Your task to perform on an android device: move a message to another label in the gmail app Image 0: 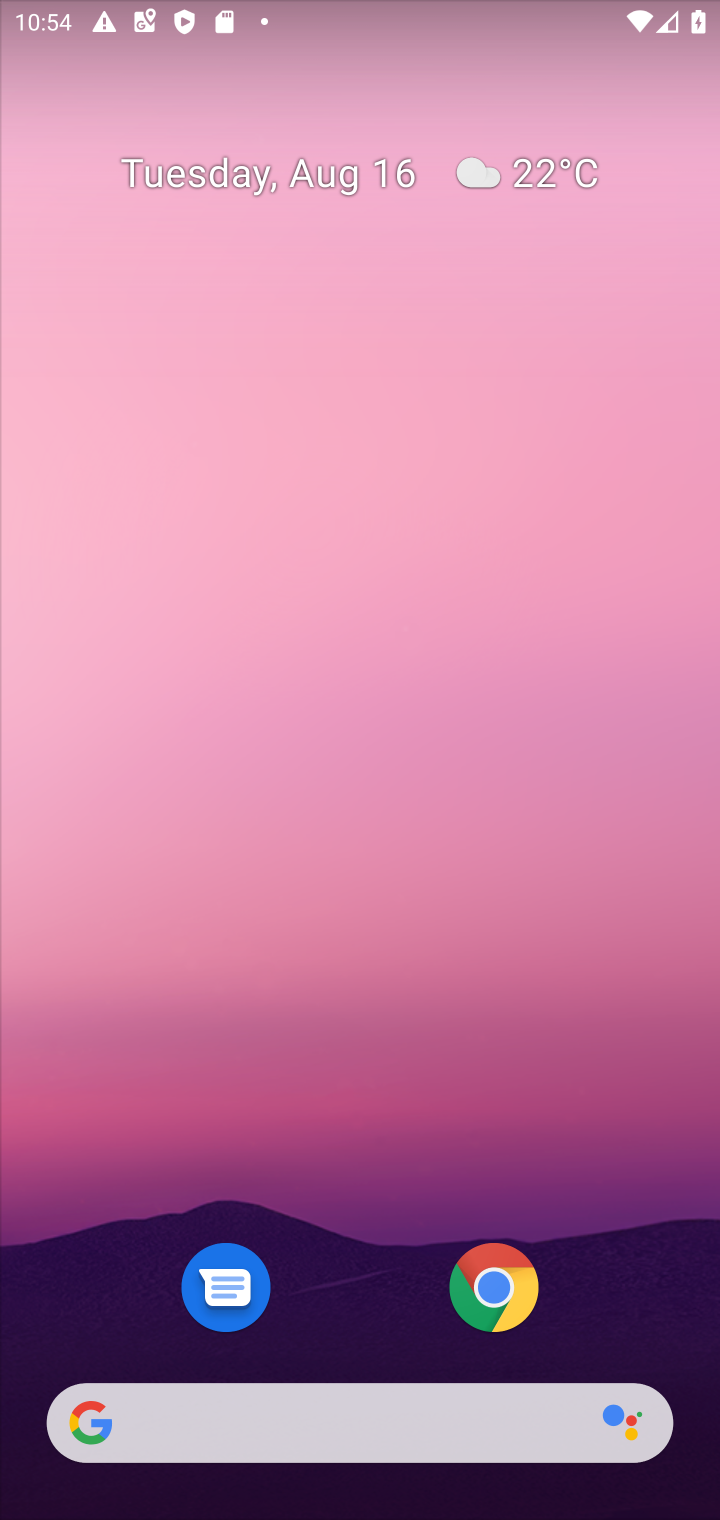
Step 0: drag from (669, 1318) to (593, 238)
Your task to perform on an android device: move a message to another label in the gmail app Image 1: 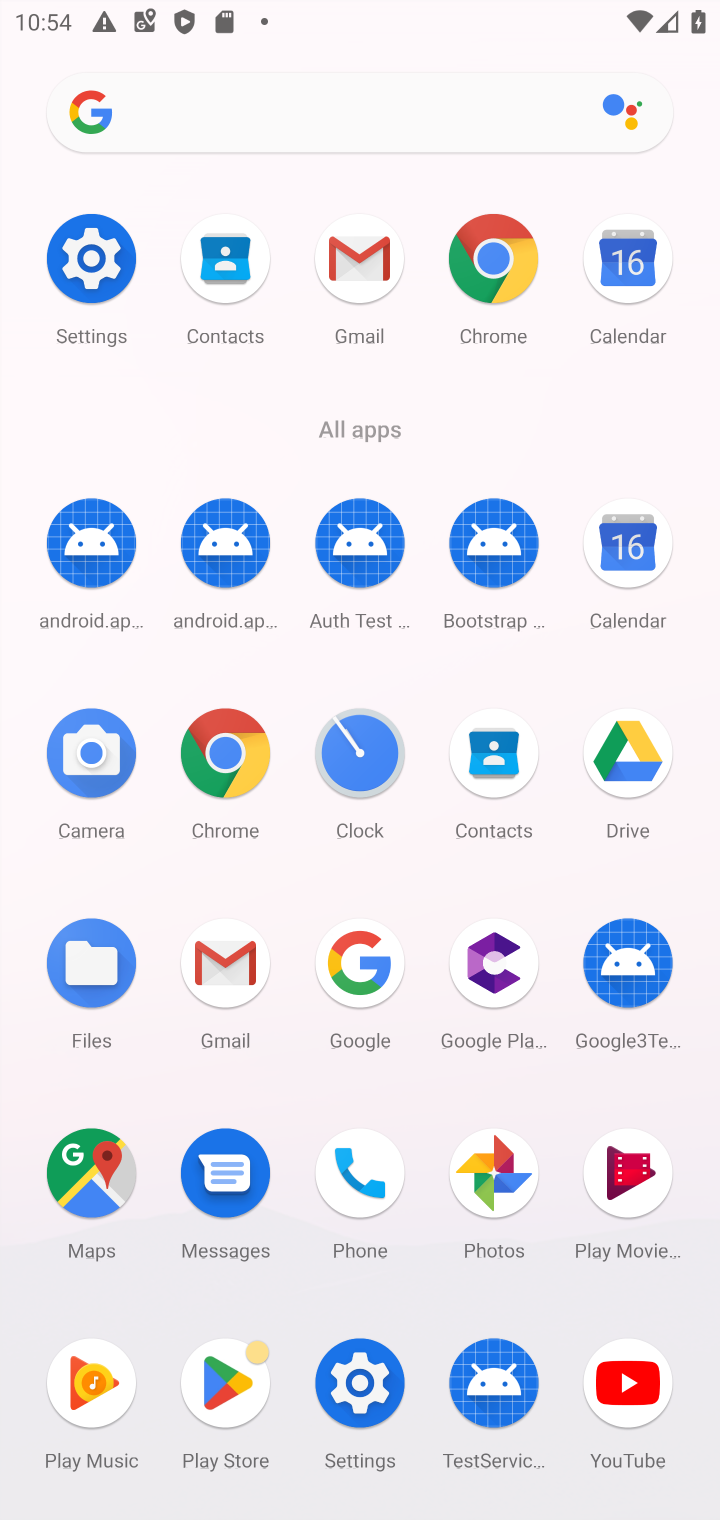
Step 1: click (224, 968)
Your task to perform on an android device: move a message to another label in the gmail app Image 2: 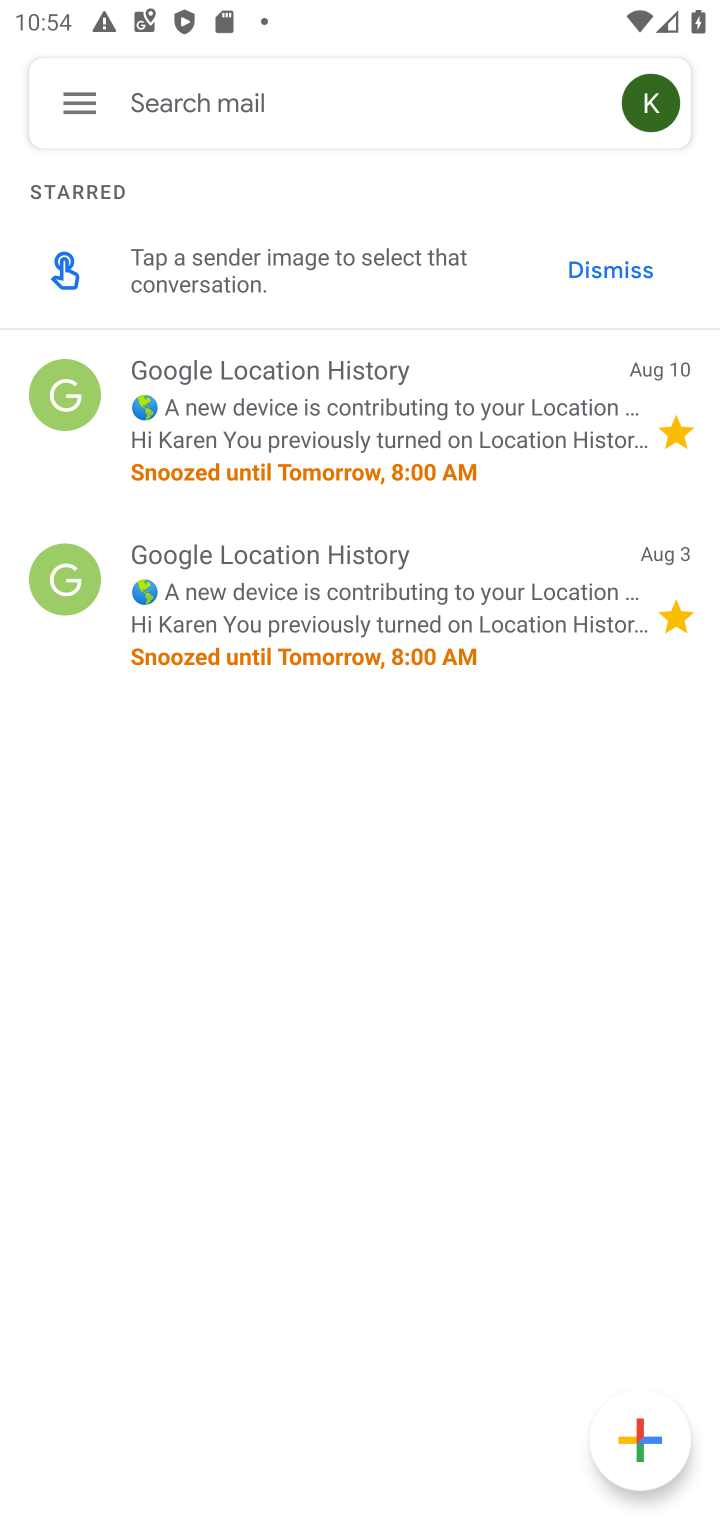
Step 2: click (69, 88)
Your task to perform on an android device: move a message to another label in the gmail app Image 3: 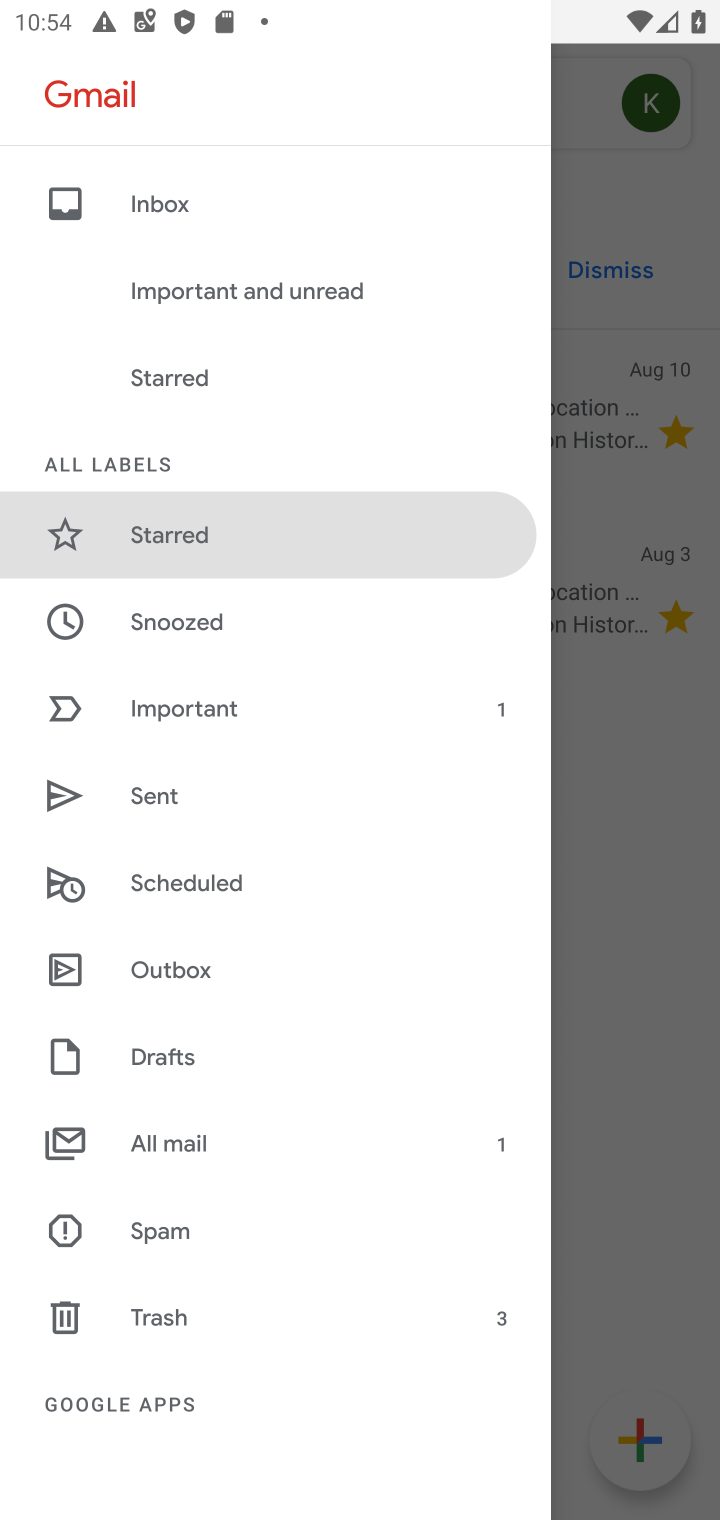
Step 3: click (174, 1143)
Your task to perform on an android device: move a message to another label in the gmail app Image 4: 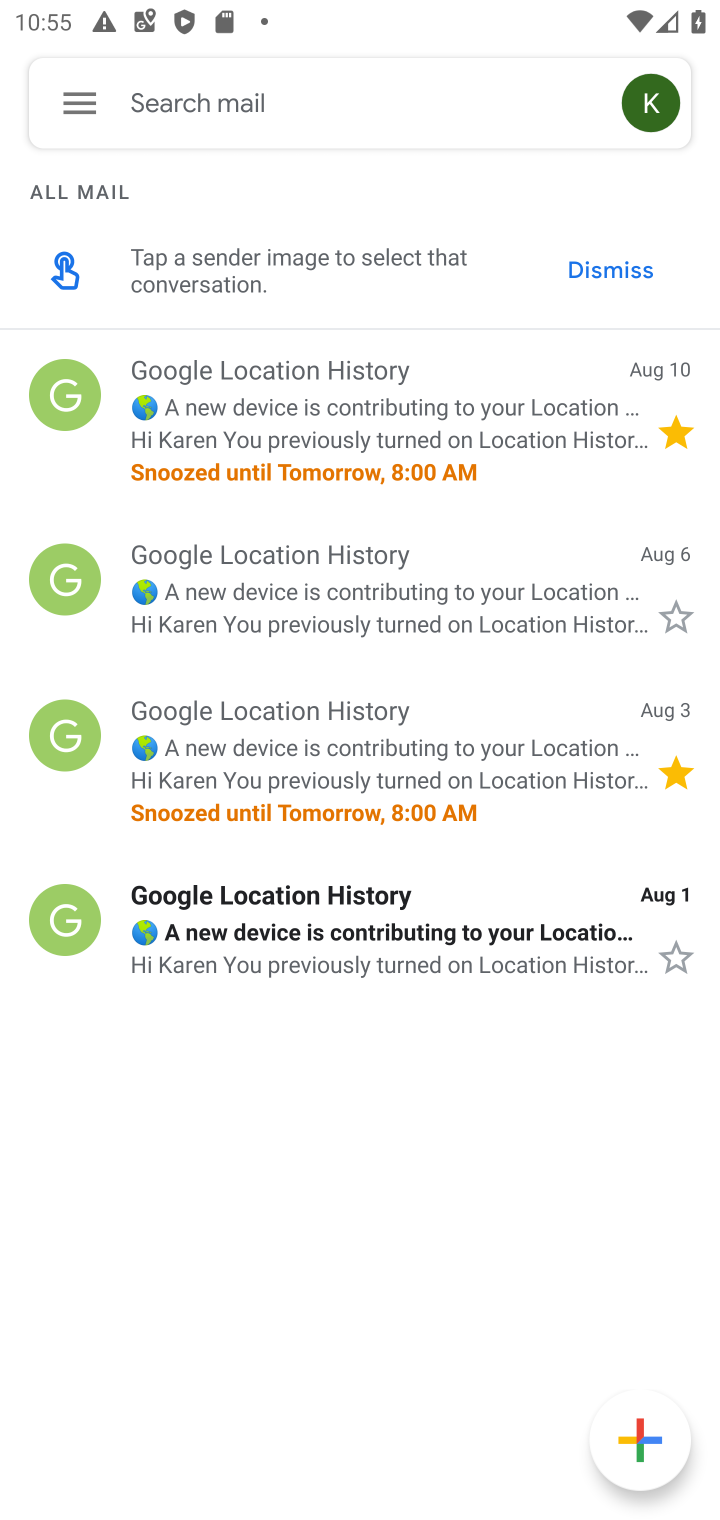
Step 4: click (390, 368)
Your task to perform on an android device: move a message to another label in the gmail app Image 5: 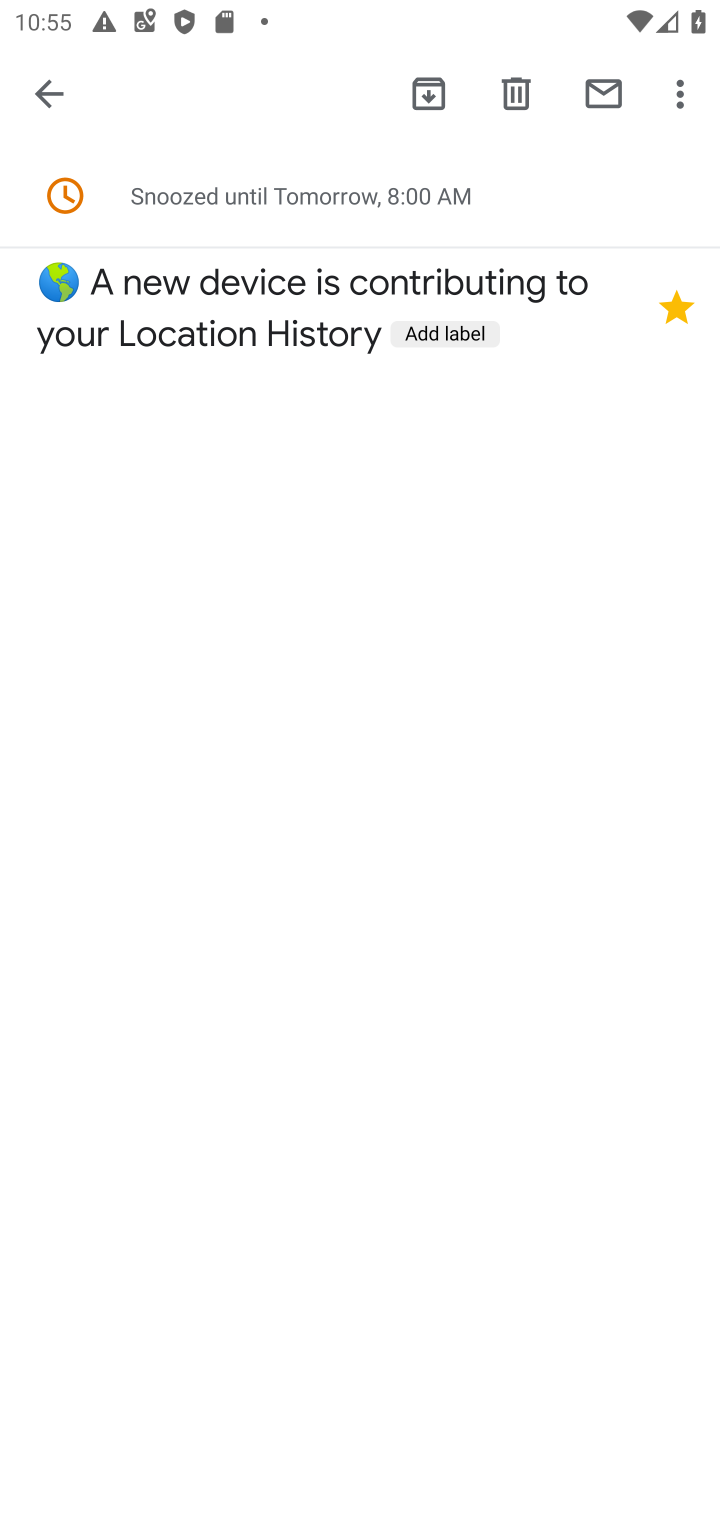
Step 5: click (671, 103)
Your task to perform on an android device: move a message to another label in the gmail app Image 6: 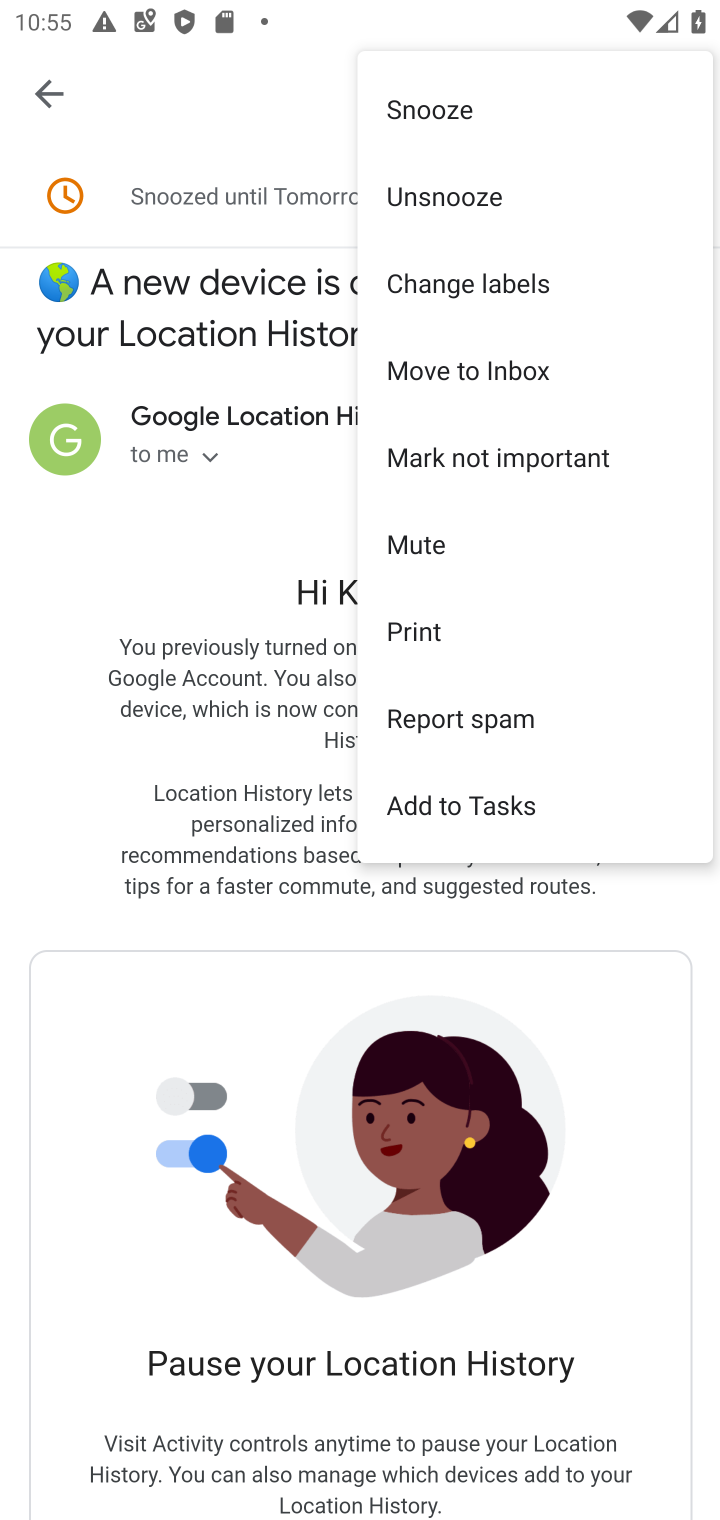
Step 6: click (448, 377)
Your task to perform on an android device: move a message to another label in the gmail app Image 7: 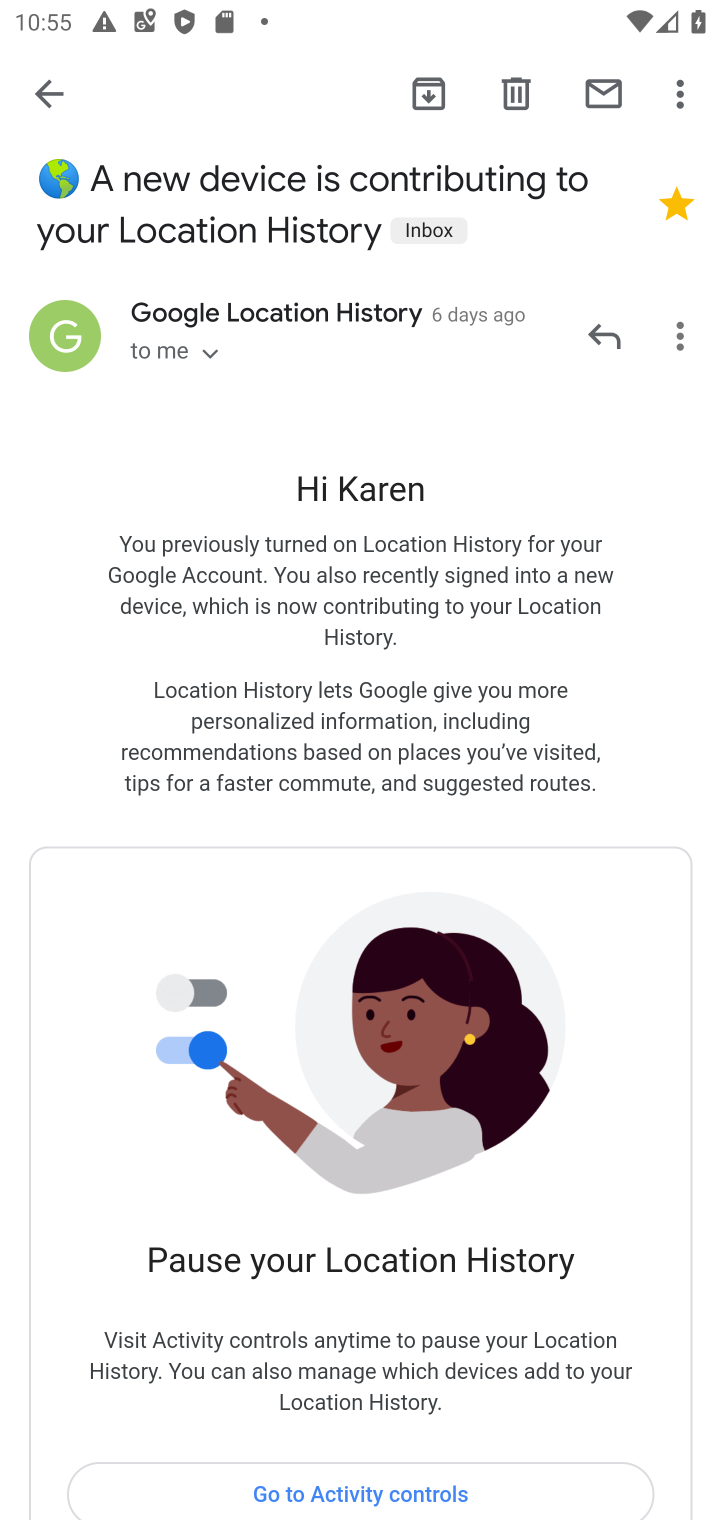
Step 7: task complete